Your task to perform on an android device: Show me popular games on the Play Store Image 0: 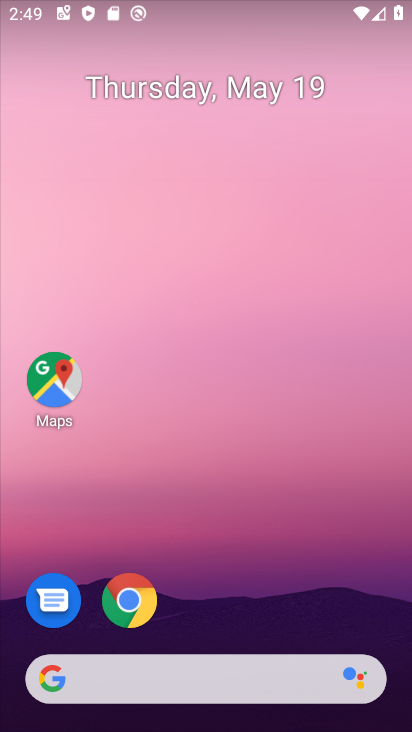
Step 0: drag from (383, 617) to (341, 319)
Your task to perform on an android device: Show me popular games on the Play Store Image 1: 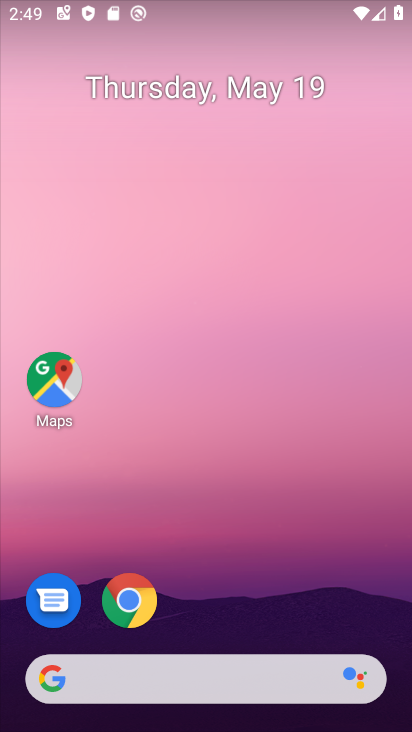
Step 1: drag from (385, 595) to (272, 152)
Your task to perform on an android device: Show me popular games on the Play Store Image 2: 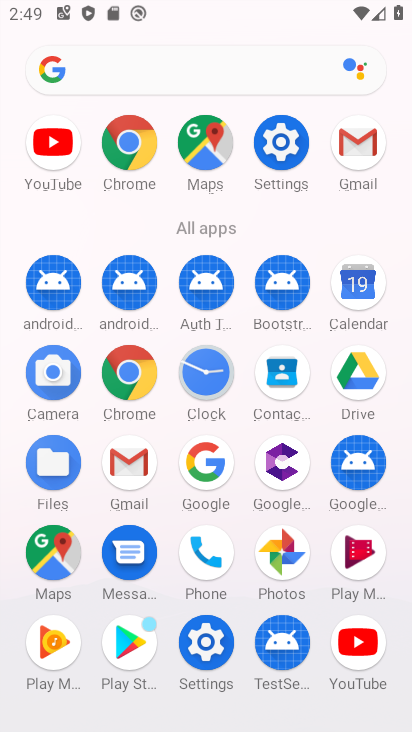
Step 2: click (115, 656)
Your task to perform on an android device: Show me popular games on the Play Store Image 3: 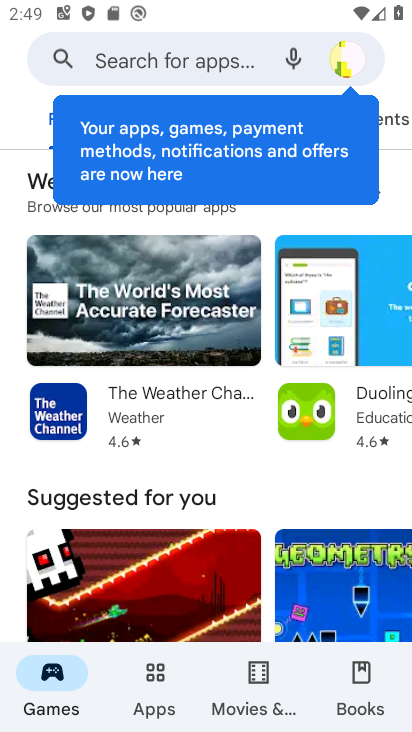
Step 3: click (239, 68)
Your task to perform on an android device: Show me popular games on the Play Store Image 4: 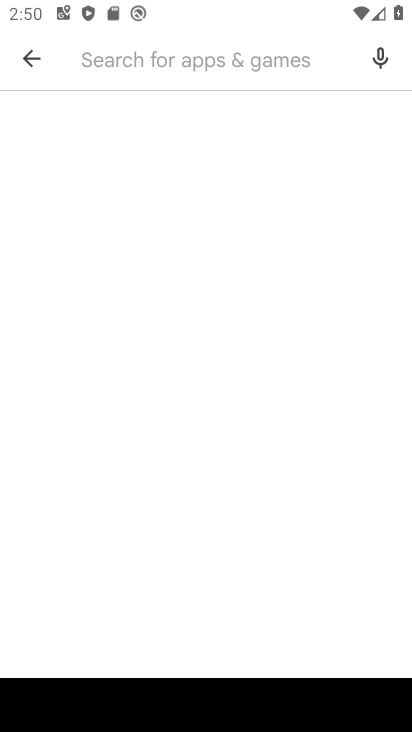
Step 4: type "popular games "
Your task to perform on an android device: Show me popular games on the Play Store Image 5: 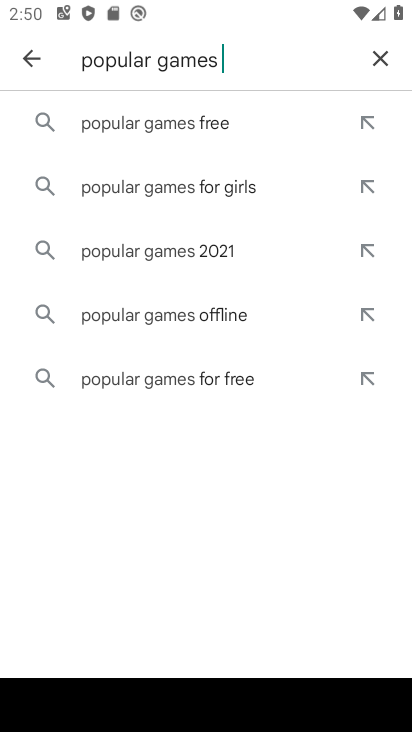
Step 5: click (123, 125)
Your task to perform on an android device: Show me popular games on the Play Store Image 6: 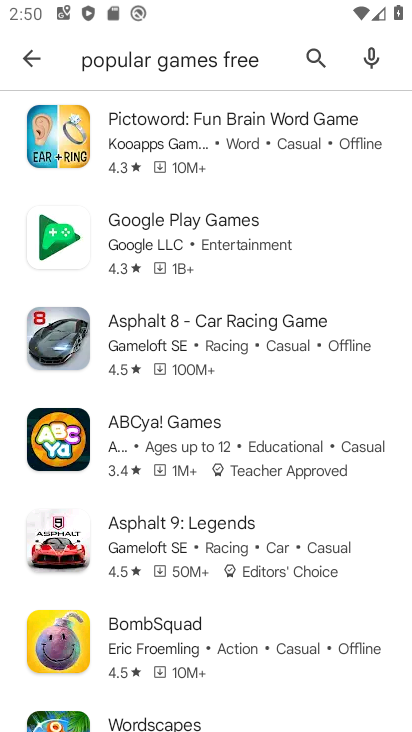
Step 6: task complete